Your task to perform on an android device: toggle data saver in the chrome app Image 0: 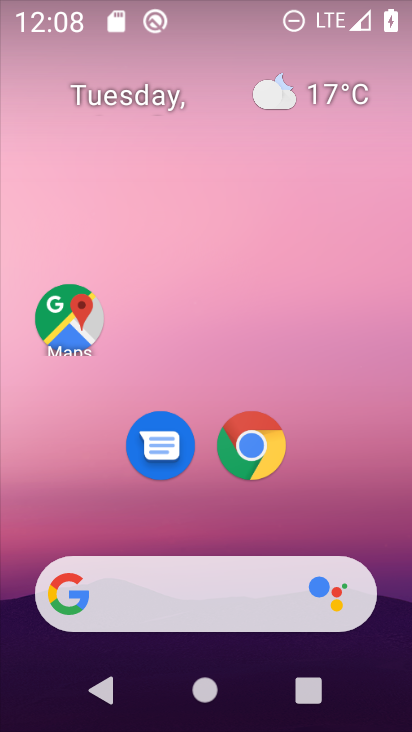
Step 0: click (247, 444)
Your task to perform on an android device: toggle data saver in the chrome app Image 1: 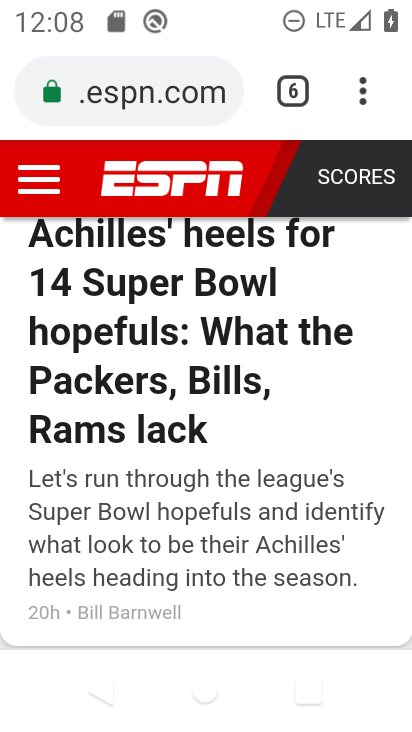
Step 1: click (356, 104)
Your task to perform on an android device: toggle data saver in the chrome app Image 2: 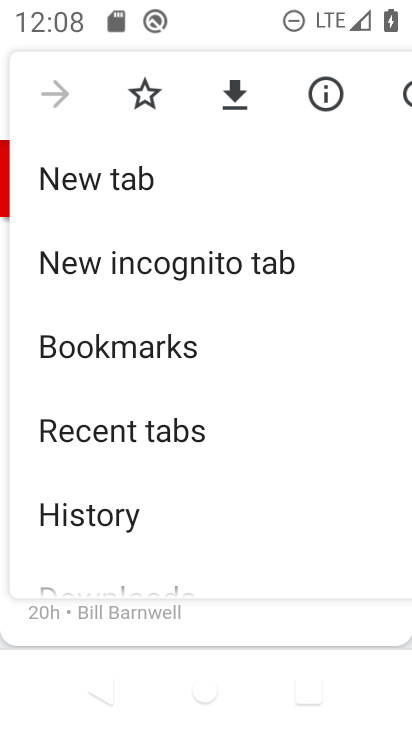
Step 2: drag from (278, 557) to (250, 115)
Your task to perform on an android device: toggle data saver in the chrome app Image 3: 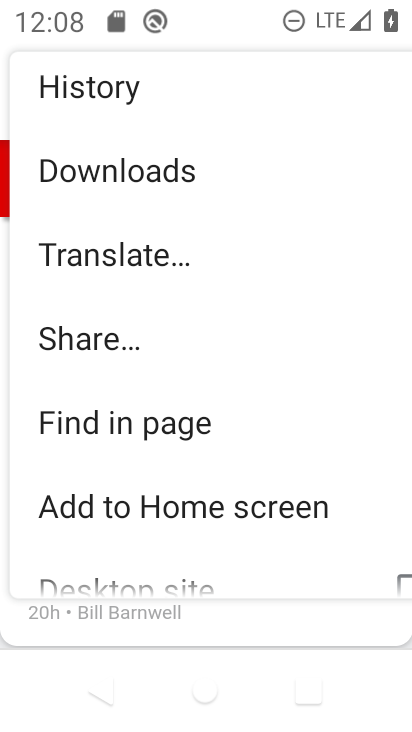
Step 3: drag from (350, 545) to (297, 238)
Your task to perform on an android device: toggle data saver in the chrome app Image 4: 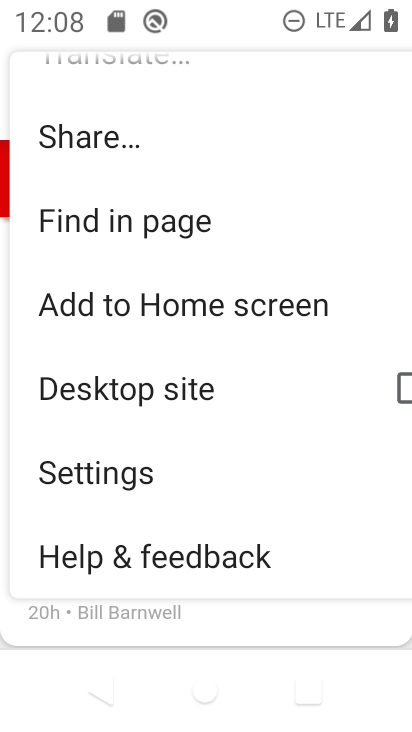
Step 4: click (97, 464)
Your task to perform on an android device: toggle data saver in the chrome app Image 5: 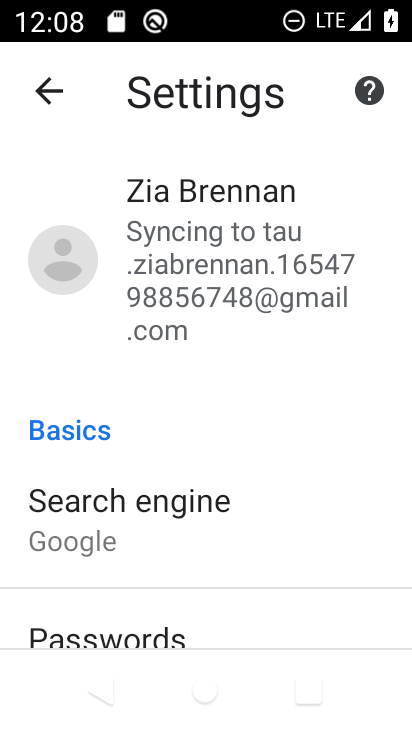
Step 5: drag from (297, 605) to (249, 162)
Your task to perform on an android device: toggle data saver in the chrome app Image 6: 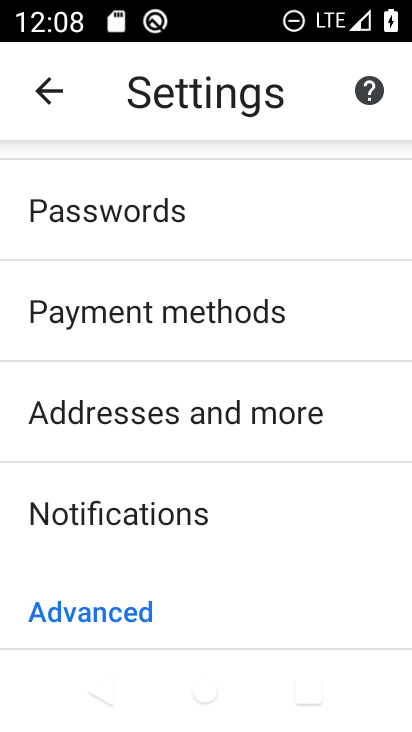
Step 6: drag from (268, 596) to (252, 184)
Your task to perform on an android device: toggle data saver in the chrome app Image 7: 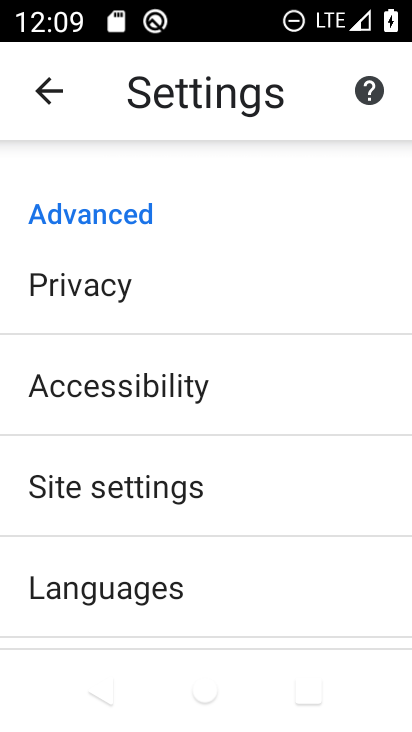
Step 7: drag from (226, 595) to (205, 261)
Your task to perform on an android device: toggle data saver in the chrome app Image 8: 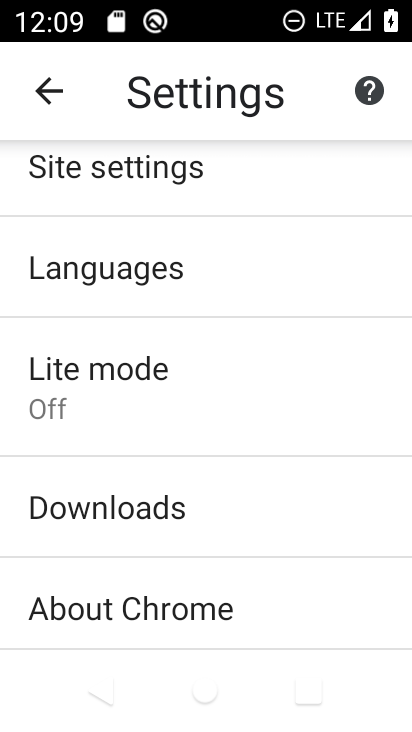
Step 8: click (62, 392)
Your task to perform on an android device: toggle data saver in the chrome app Image 9: 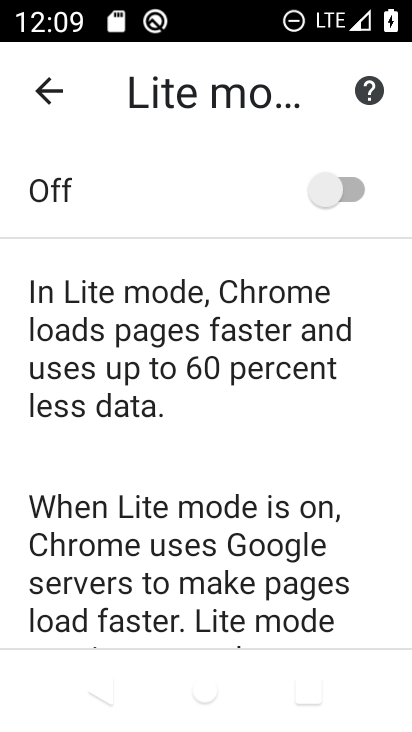
Step 9: click (359, 182)
Your task to perform on an android device: toggle data saver in the chrome app Image 10: 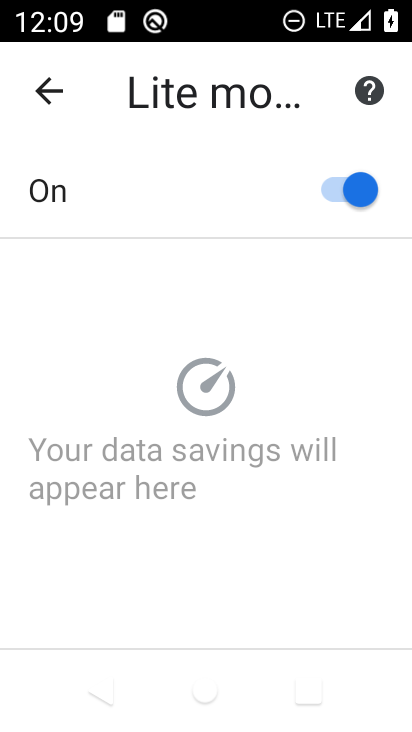
Step 10: task complete